Your task to perform on an android device: turn off data saver in the chrome app Image 0: 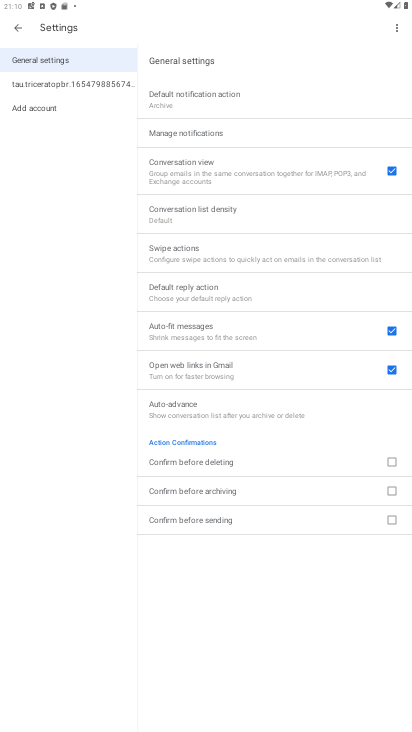
Step 0: press home button
Your task to perform on an android device: turn off data saver in the chrome app Image 1: 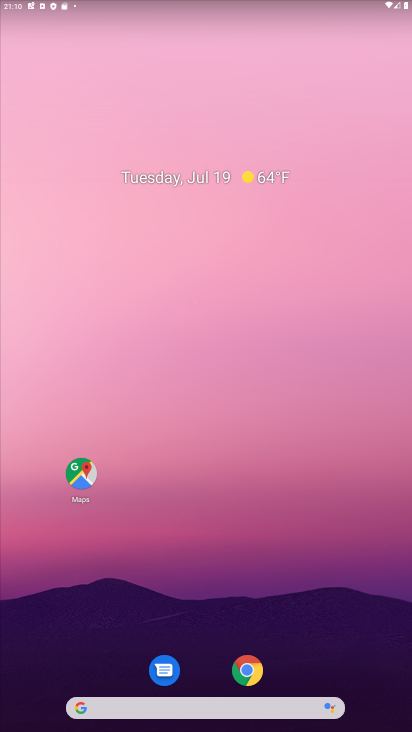
Step 1: click (252, 681)
Your task to perform on an android device: turn off data saver in the chrome app Image 2: 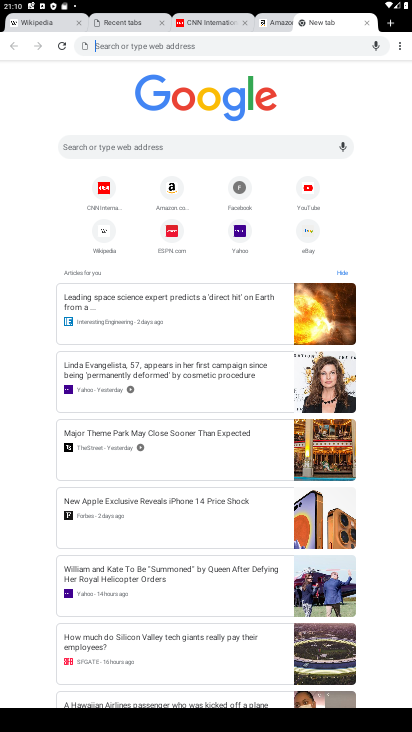
Step 2: click (398, 43)
Your task to perform on an android device: turn off data saver in the chrome app Image 3: 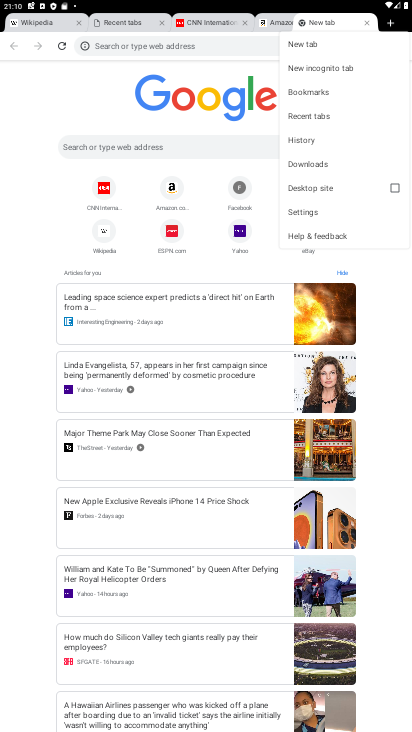
Step 3: click (305, 209)
Your task to perform on an android device: turn off data saver in the chrome app Image 4: 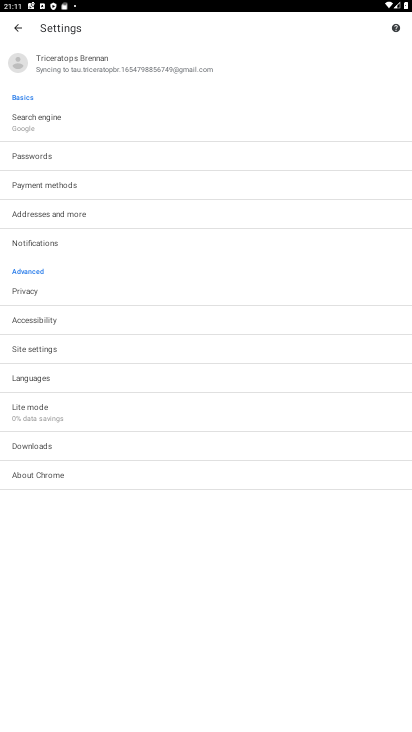
Step 4: click (75, 421)
Your task to perform on an android device: turn off data saver in the chrome app Image 5: 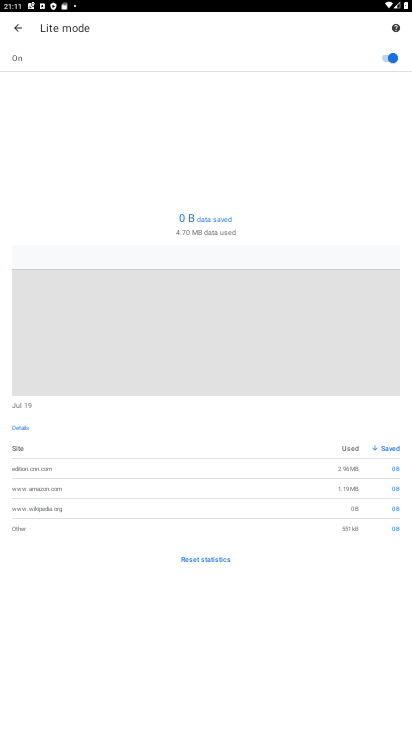
Step 5: click (389, 56)
Your task to perform on an android device: turn off data saver in the chrome app Image 6: 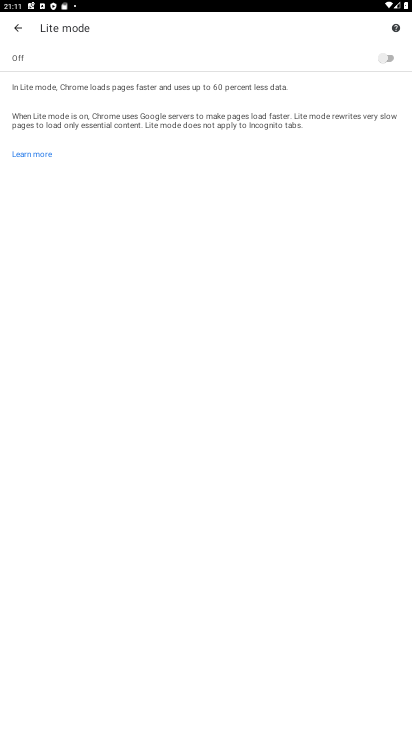
Step 6: task complete